Your task to perform on an android device: Do I have any events this weekend? Image 0: 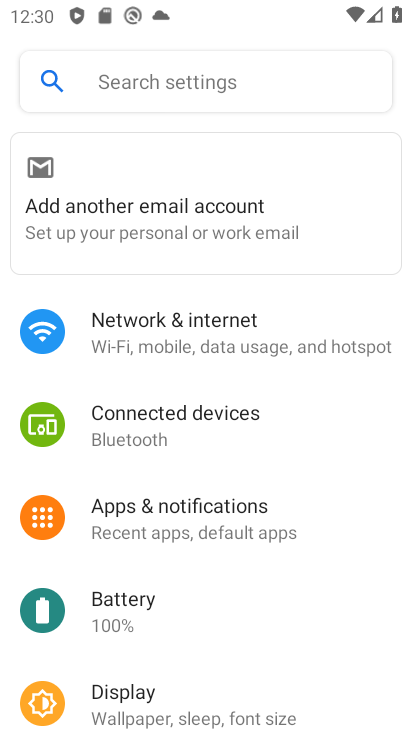
Step 0: press home button
Your task to perform on an android device: Do I have any events this weekend? Image 1: 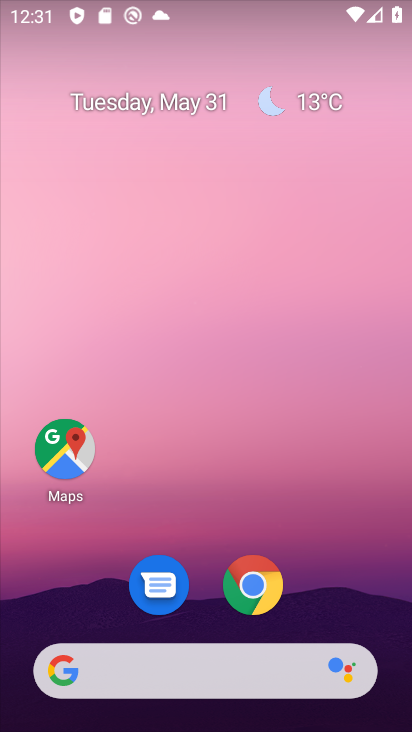
Step 1: drag from (163, 477) to (199, 33)
Your task to perform on an android device: Do I have any events this weekend? Image 2: 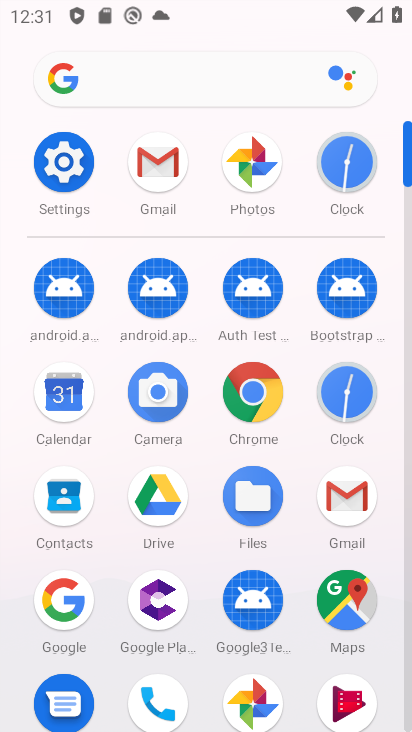
Step 2: click (70, 389)
Your task to perform on an android device: Do I have any events this weekend? Image 3: 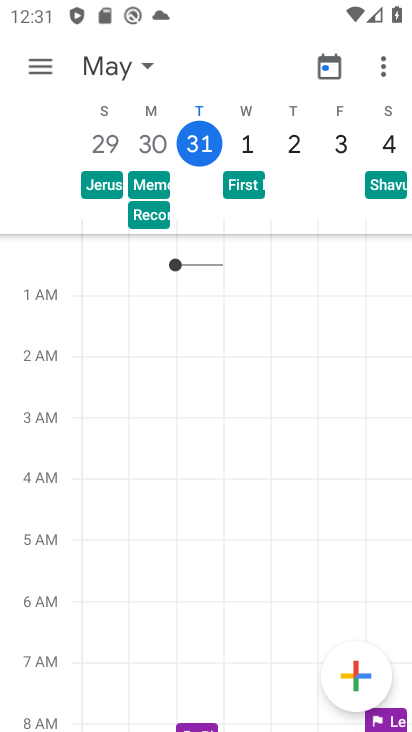
Step 3: click (198, 146)
Your task to perform on an android device: Do I have any events this weekend? Image 4: 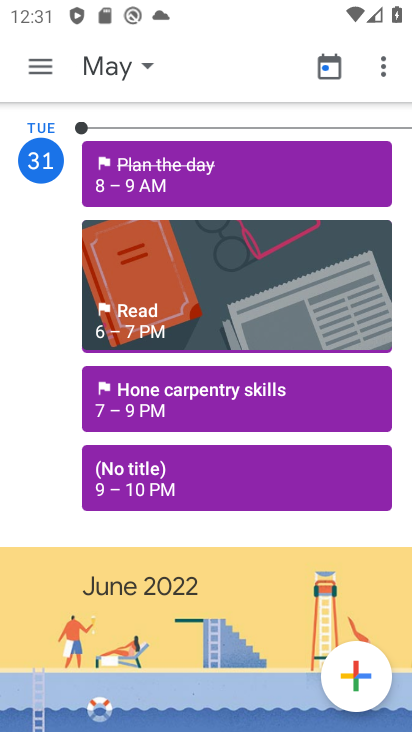
Step 4: task complete